Your task to perform on an android device: change the clock display to analog Image 0: 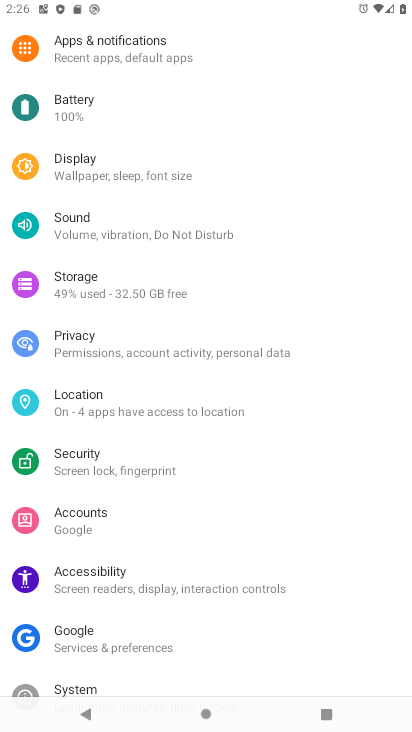
Step 0: press home button
Your task to perform on an android device: change the clock display to analog Image 1: 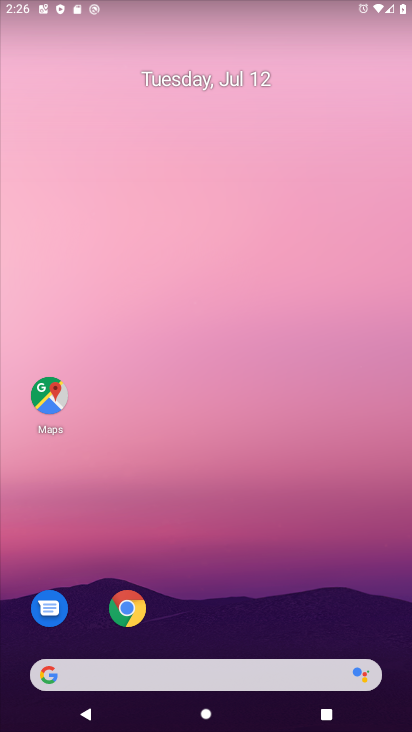
Step 1: drag from (317, 514) to (244, 100)
Your task to perform on an android device: change the clock display to analog Image 2: 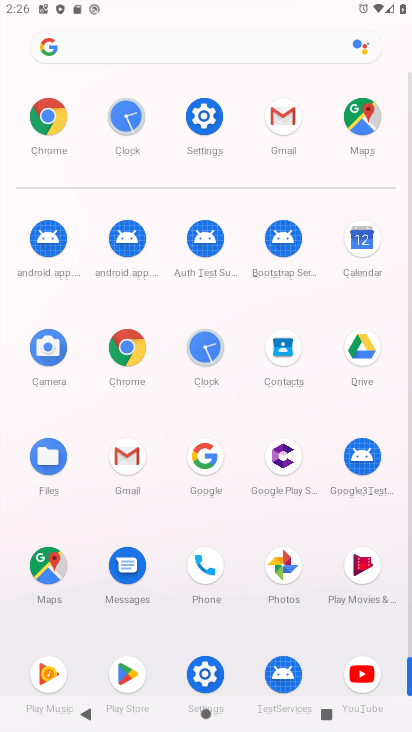
Step 2: click (207, 346)
Your task to perform on an android device: change the clock display to analog Image 3: 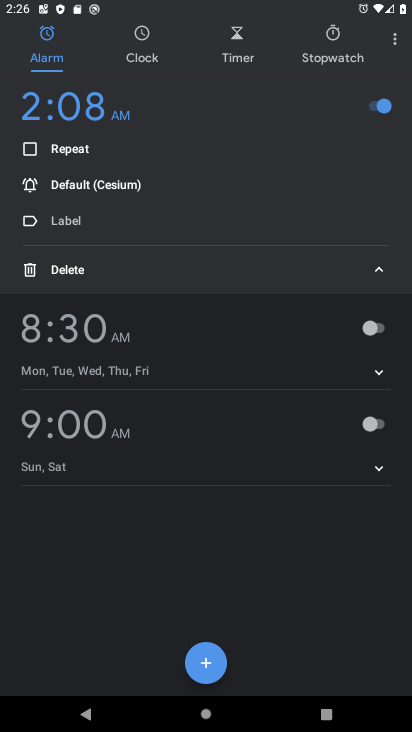
Step 3: click (393, 43)
Your task to perform on an android device: change the clock display to analog Image 4: 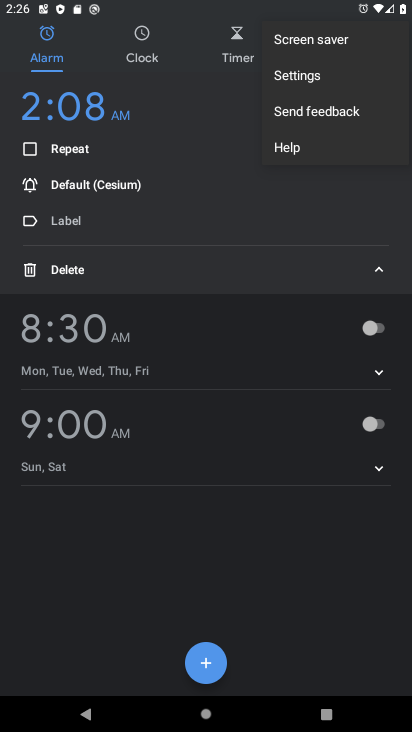
Step 4: click (326, 71)
Your task to perform on an android device: change the clock display to analog Image 5: 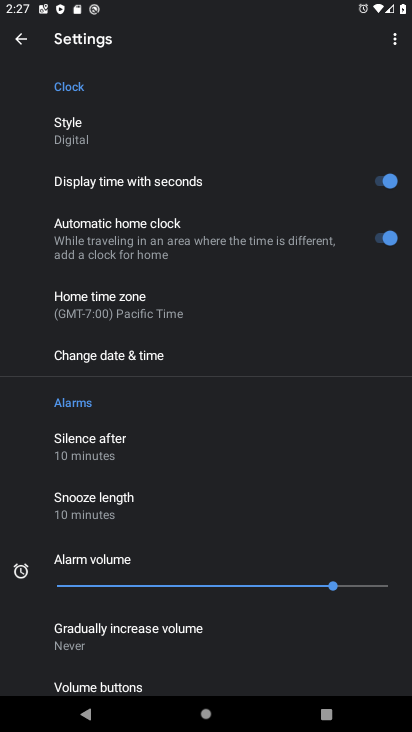
Step 5: click (81, 138)
Your task to perform on an android device: change the clock display to analog Image 6: 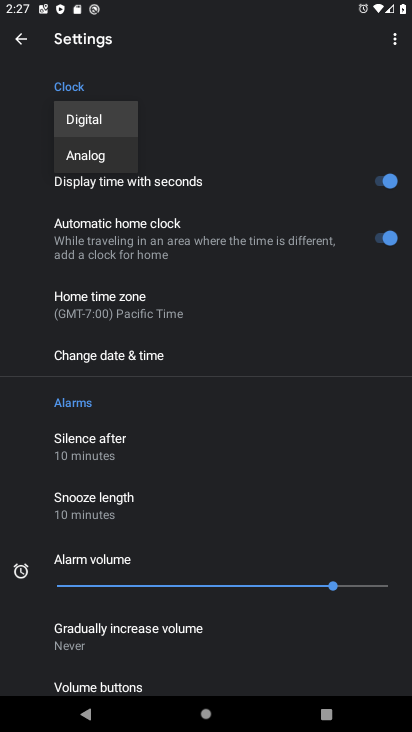
Step 6: click (106, 164)
Your task to perform on an android device: change the clock display to analog Image 7: 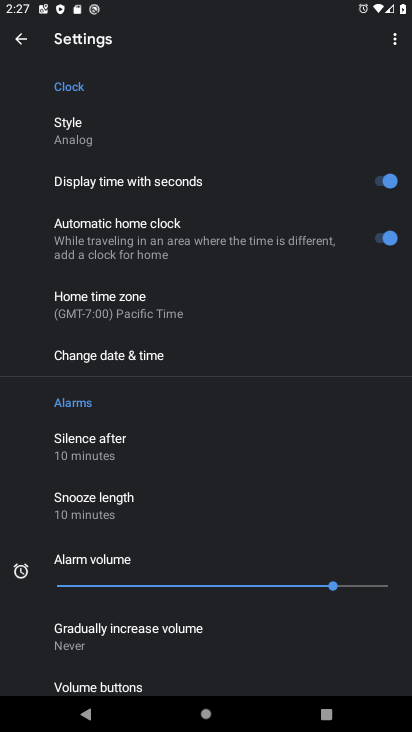
Step 7: task complete